Your task to perform on an android device: toggle priority inbox in the gmail app Image 0: 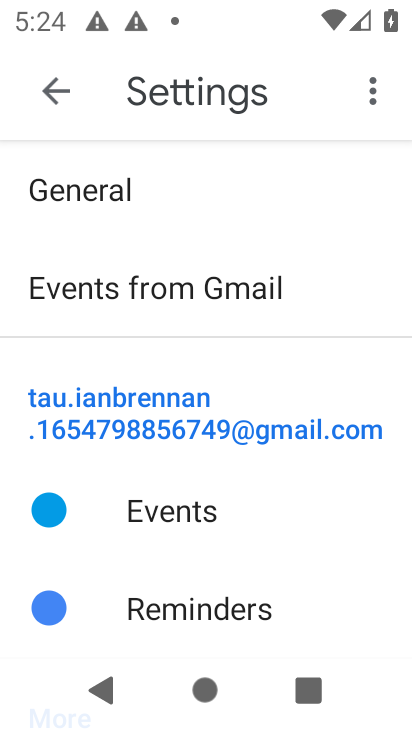
Step 0: press home button
Your task to perform on an android device: toggle priority inbox in the gmail app Image 1: 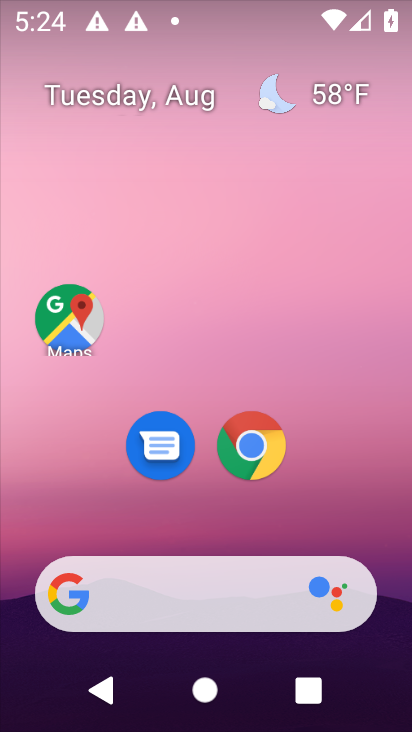
Step 1: drag from (199, 469) to (182, 96)
Your task to perform on an android device: toggle priority inbox in the gmail app Image 2: 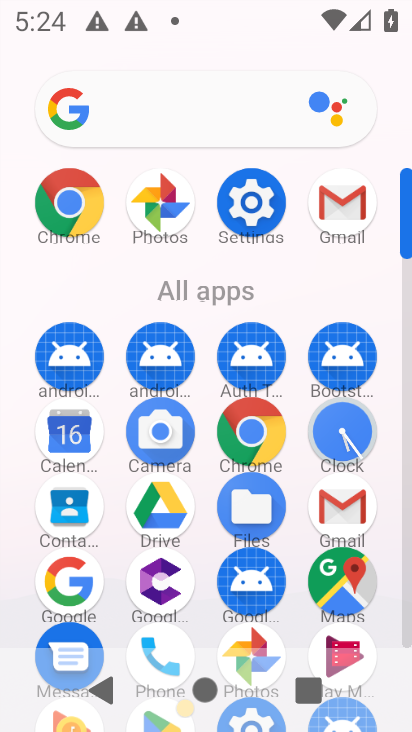
Step 2: click (348, 207)
Your task to perform on an android device: toggle priority inbox in the gmail app Image 3: 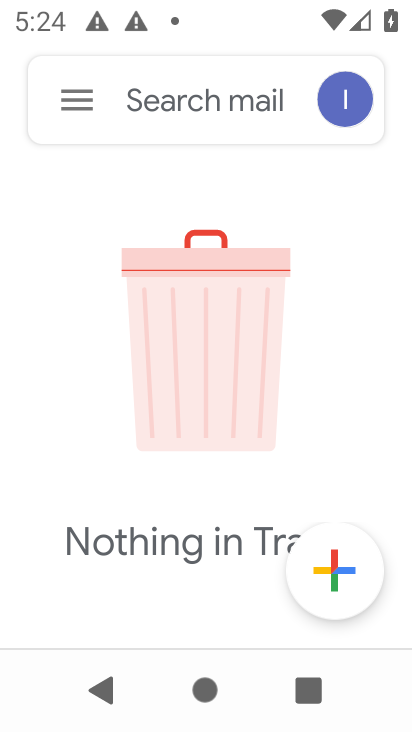
Step 3: click (73, 94)
Your task to perform on an android device: toggle priority inbox in the gmail app Image 4: 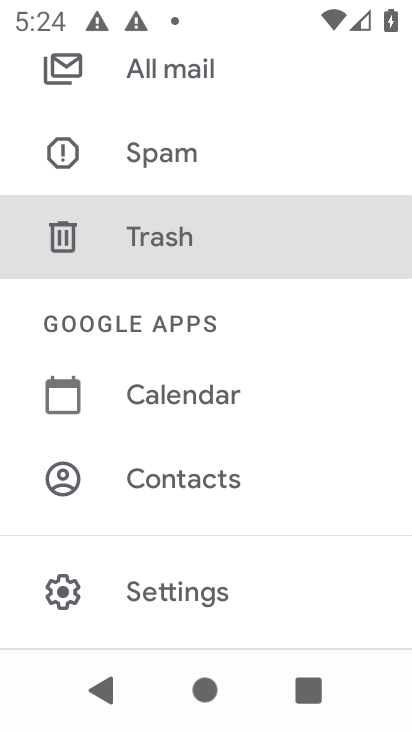
Step 4: click (199, 595)
Your task to perform on an android device: toggle priority inbox in the gmail app Image 5: 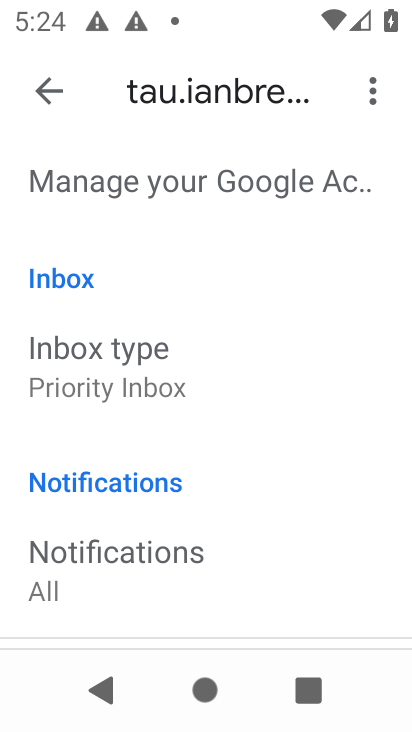
Step 5: click (103, 383)
Your task to perform on an android device: toggle priority inbox in the gmail app Image 6: 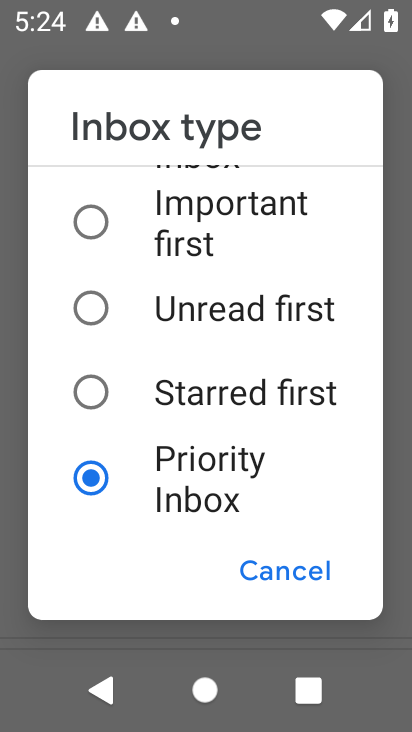
Step 6: click (88, 220)
Your task to perform on an android device: toggle priority inbox in the gmail app Image 7: 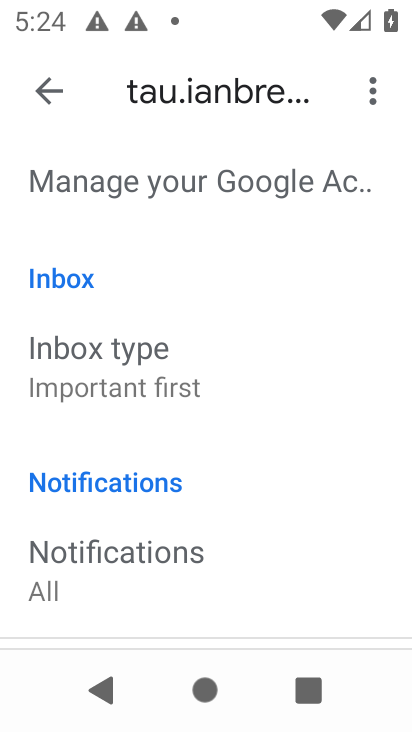
Step 7: task complete